Your task to perform on an android device: Search for pizza restaurants on Maps Image 0: 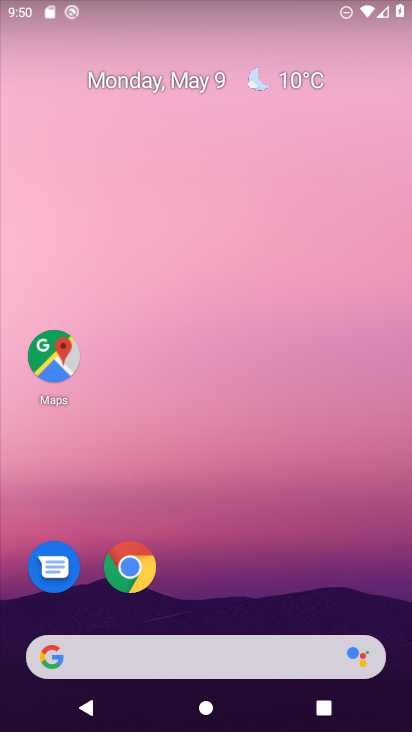
Step 0: click (51, 346)
Your task to perform on an android device: Search for pizza restaurants on Maps Image 1: 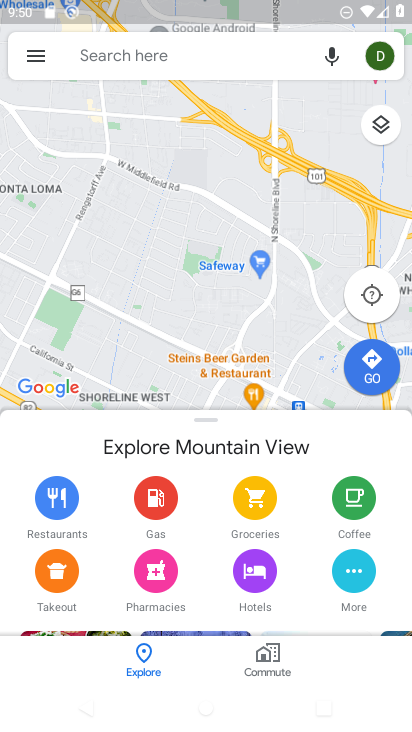
Step 1: click (142, 45)
Your task to perform on an android device: Search for pizza restaurants on Maps Image 2: 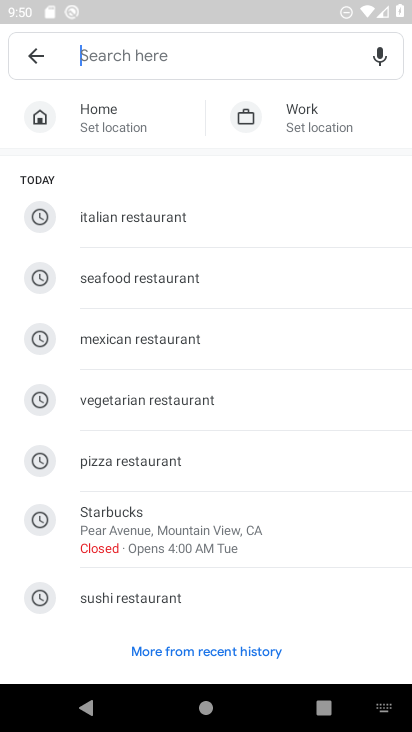
Step 2: click (175, 455)
Your task to perform on an android device: Search for pizza restaurants on Maps Image 3: 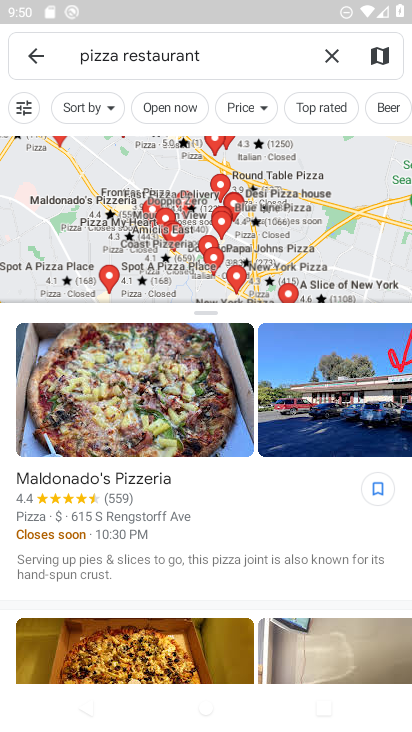
Step 3: task complete